Your task to perform on an android device: check data usage Image 0: 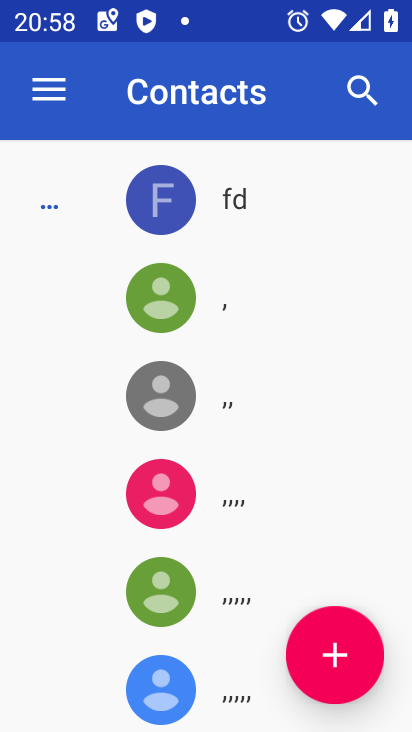
Step 0: press home button
Your task to perform on an android device: check data usage Image 1: 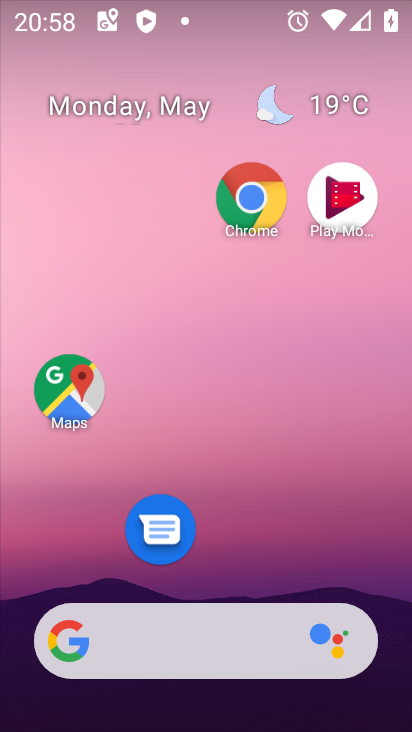
Step 1: drag from (232, 548) to (206, 0)
Your task to perform on an android device: check data usage Image 2: 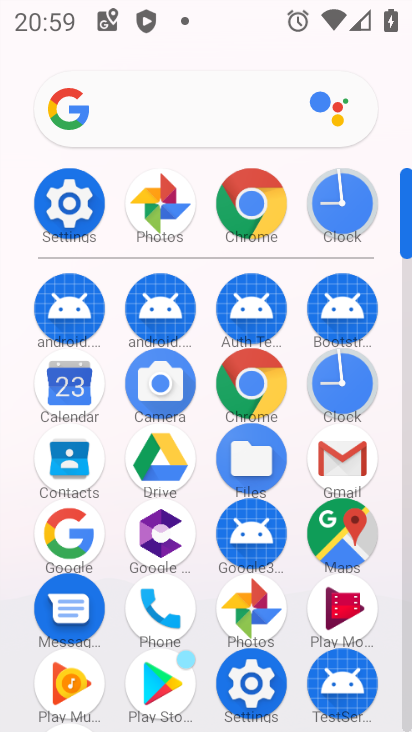
Step 2: click (56, 196)
Your task to perform on an android device: check data usage Image 3: 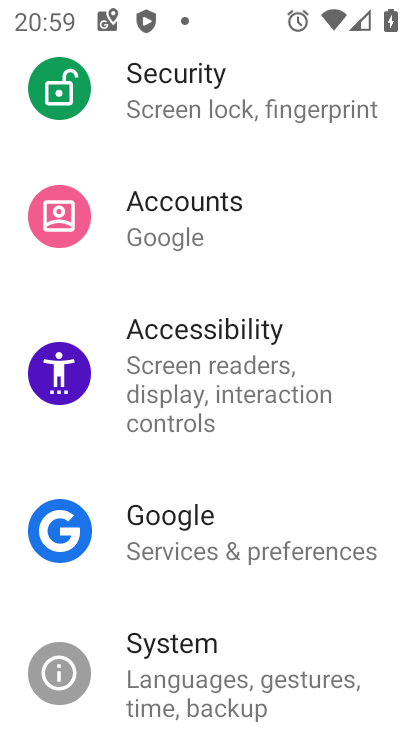
Step 3: drag from (175, 298) to (195, 720)
Your task to perform on an android device: check data usage Image 4: 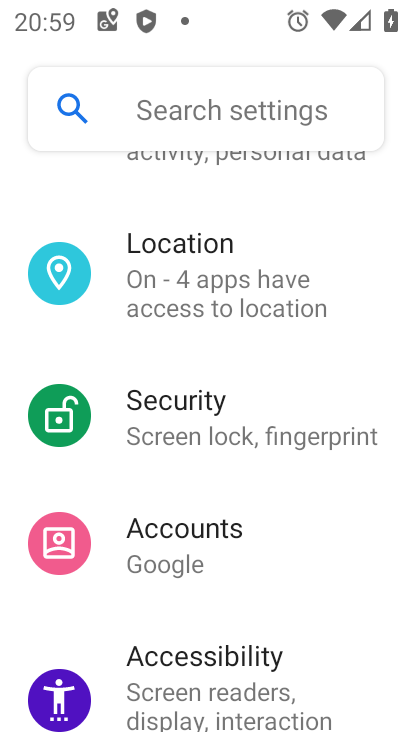
Step 4: drag from (228, 365) to (223, 703)
Your task to perform on an android device: check data usage Image 5: 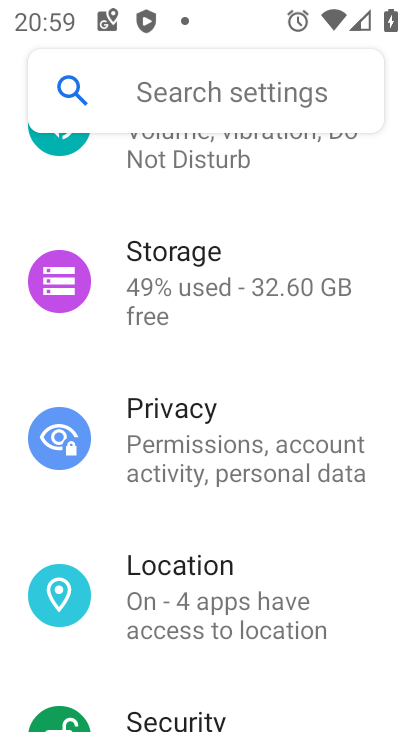
Step 5: drag from (261, 328) to (243, 717)
Your task to perform on an android device: check data usage Image 6: 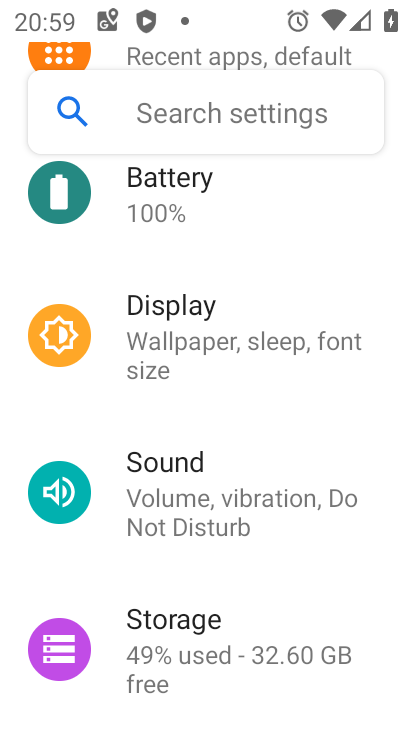
Step 6: drag from (260, 293) to (232, 686)
Your task to perform on an android device: check data usage Image 7: 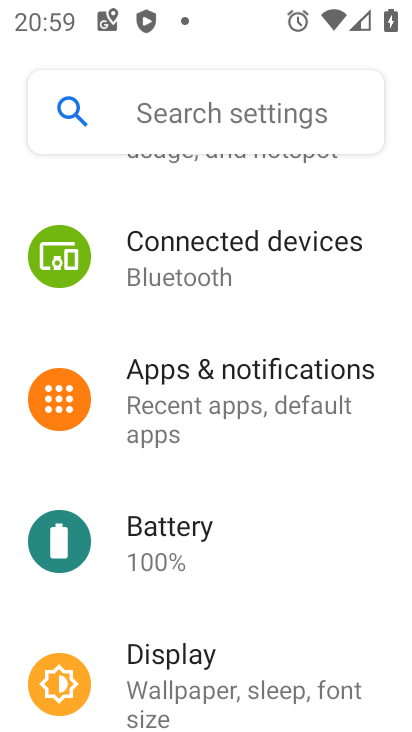
Step 7: drag from (239, 326) to (227, 710)
Your task to perform on an android device: check data usage Image 8: 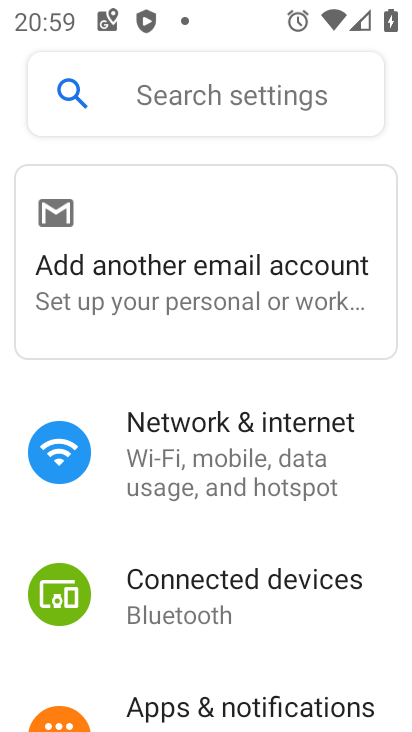
Step 8: click (208, 481)
Your task to perform on an android device: check data usage Image 9: 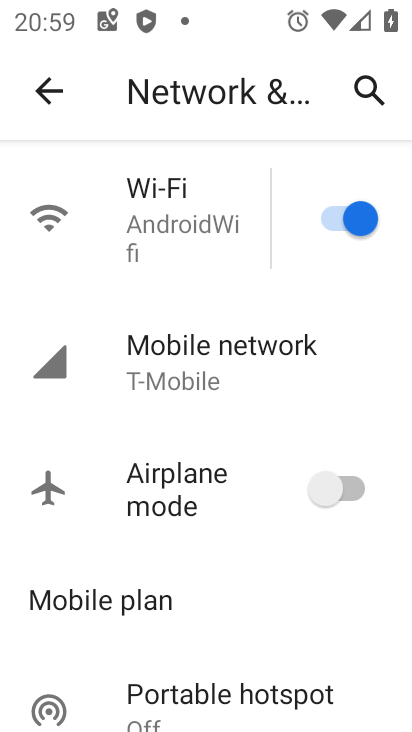
Step 9: click (210, 376)
Your task to perform on an android device: check data usage Image 10: 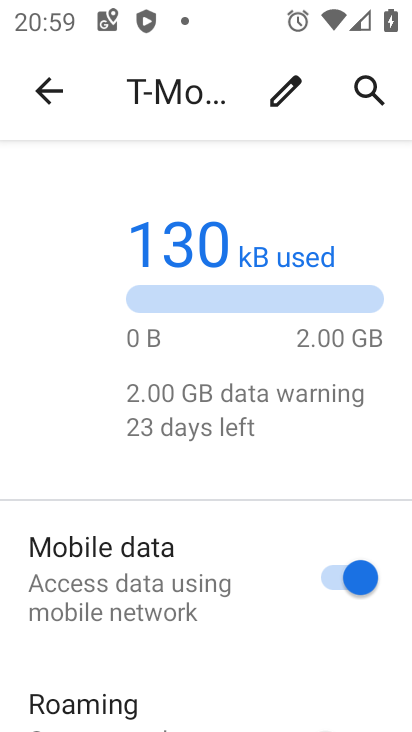
Step 10: task complete